Your task to perform on an android device: change the clock display to digital Image 0: 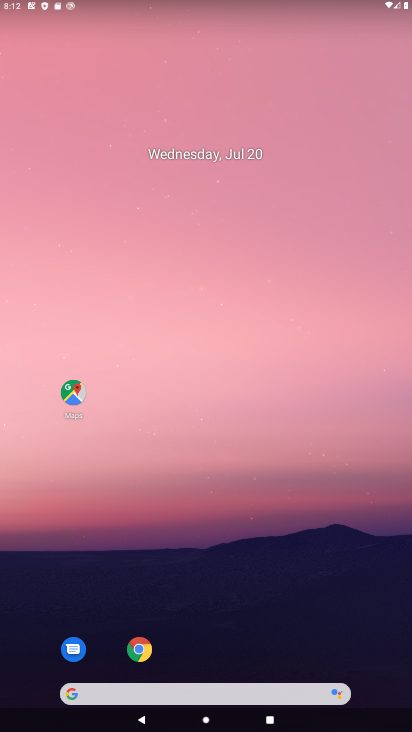
Step 0: drag from (196, 669) to (20, 1)
Your task to perform on an android device: change the clock display to digital Image 1: 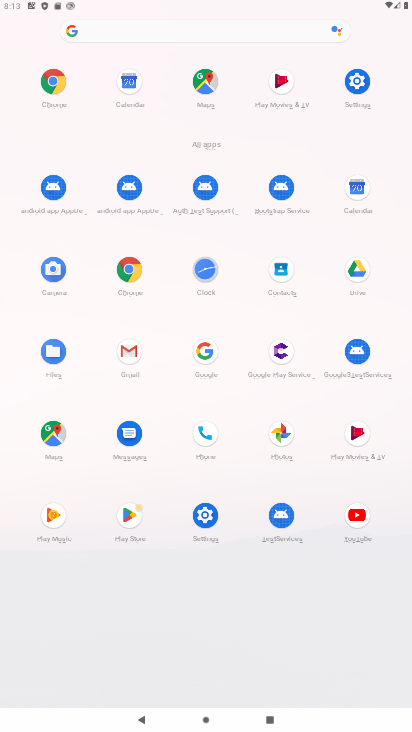
Step 1: click (198, 278)
Your task to perform on an android device: change the clock display to digital Image 2: 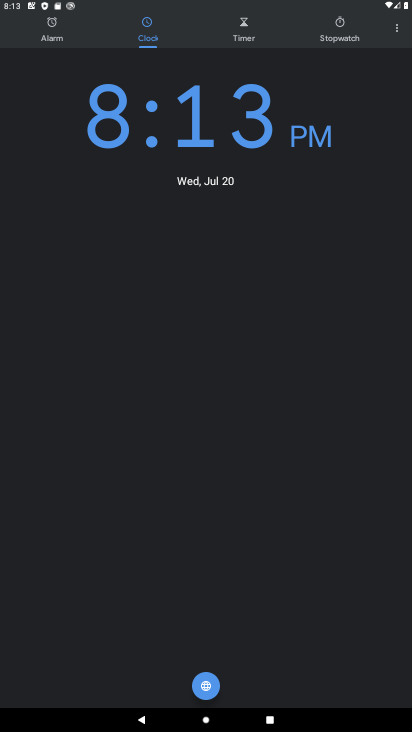
Step 2: click (390, 23)
Your task to perform on an android device: change the clock display to digital Image 3: 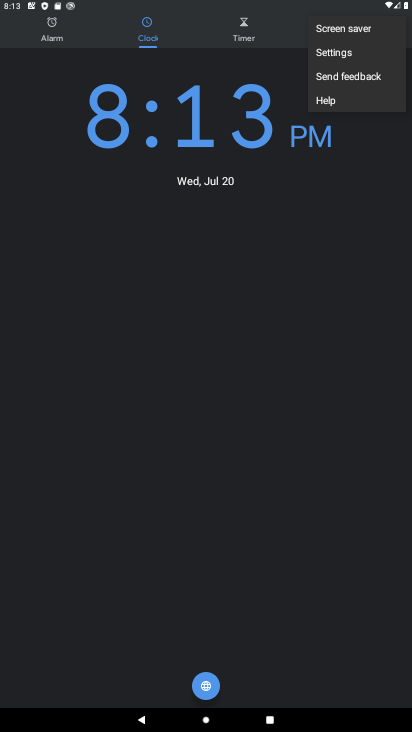
Step 3: click (343, 50)
Your task to perform on an android device: change the clock display to digital Image 4: 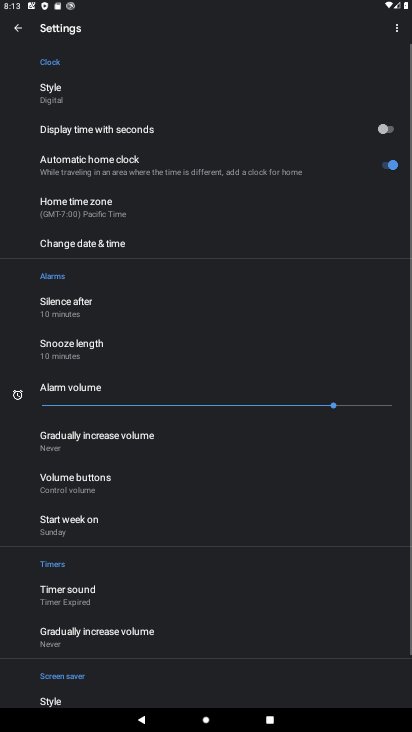
Step 4: click (34, 93)
Your task to perform on an android device: change the clock display to digital Image 5: 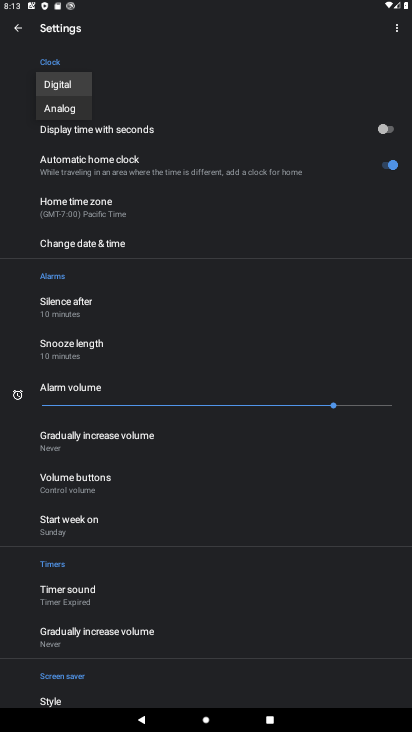
Step 5: click (65, 83)
Your task to perform on an android device: change the clock display to digital Image 6: 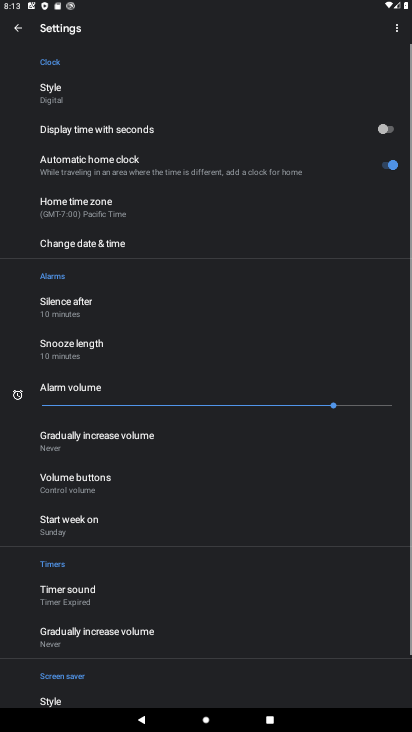
Step 6: task complete